Your task to perform on an android device: Open the Play Movies app and select the watchlist tab. Image 0: 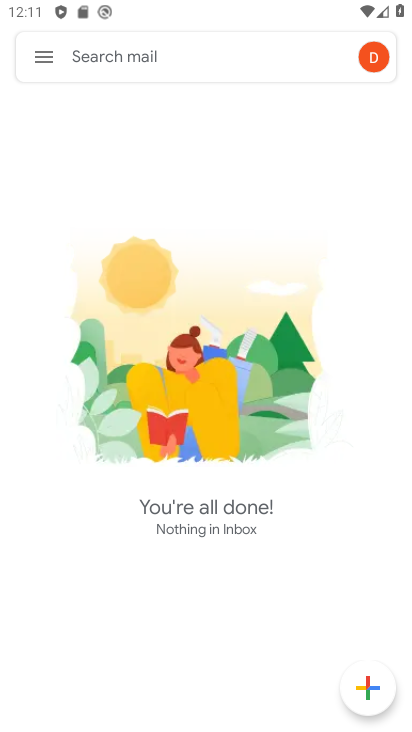
Step 0: press home button
Your task to perform on an android device: Open the Play Movies app and select the watchlist tab. Image 1: 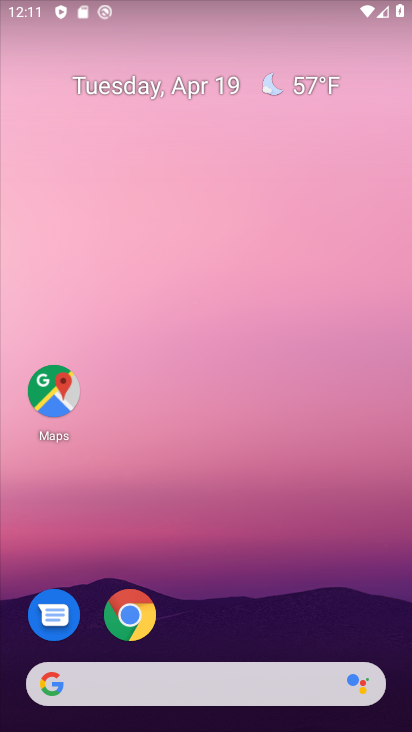
Step 1: drag from (241, 622) to (267, 152)
Your task to perform on an android device: Open the Play Movies app and select the watchlist tab. Image 2: 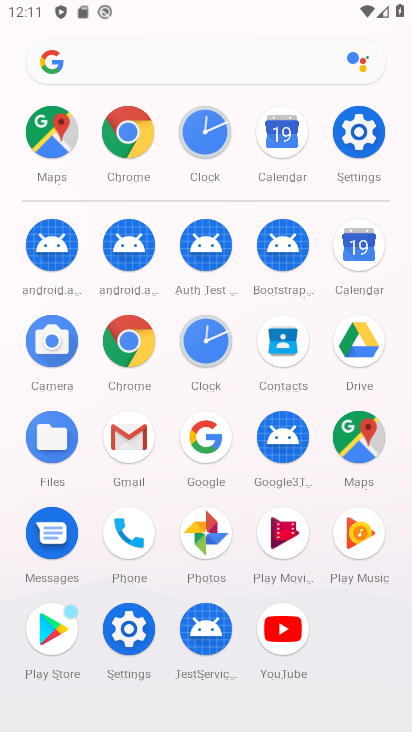
Step 2: click (273, 534)
Your task to perform on an android device: Open the Play Movies app and select the watchlist tab. Image 3: 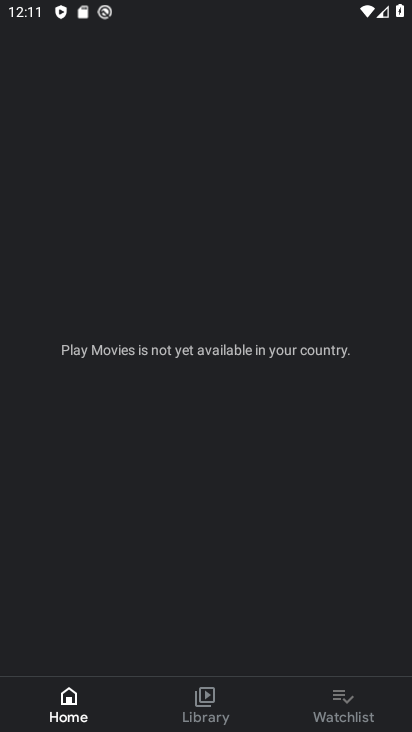
Step 3: click (346, 710)
Your task to perform on an android device: Open the Play Movies app and select the watchlist tab. Image 4: 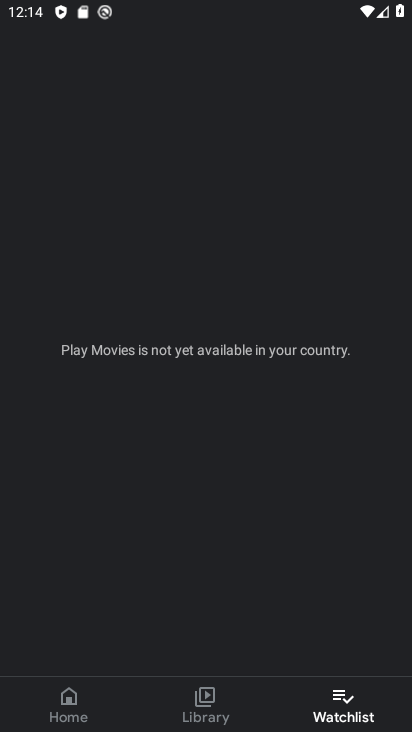
Step 4: task complete